Your task to perform on an android device: See recent photos Image 0: 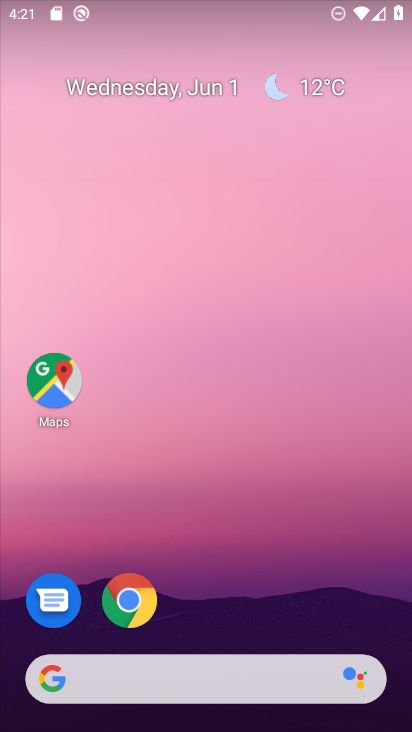
Step 0: drag from (374, 617) to (321, 112)
Your task to perform on an android device: See recent photos Image 1: 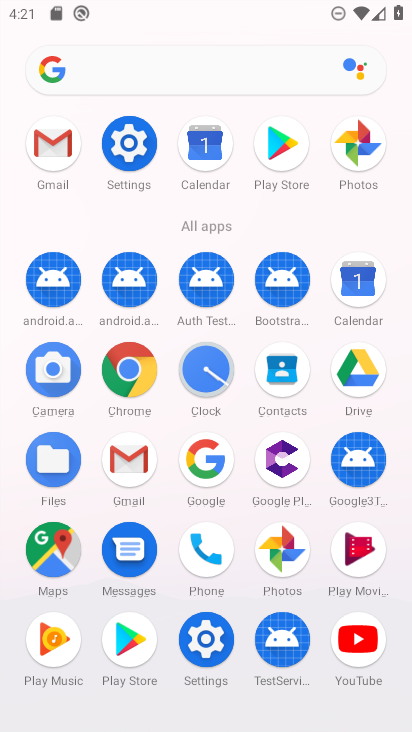
Step 1: click (281, 546)
Your task to perform on an android device: See recent photos Image 2: 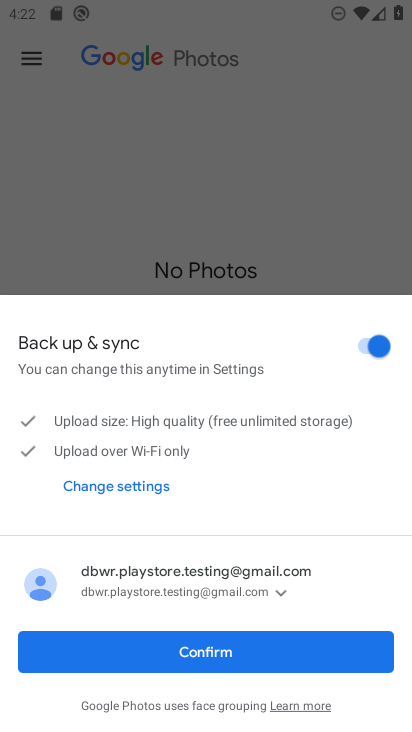
Step 2: click (205, 649)
Your task to perform on an android device: See recent photos Image 3: 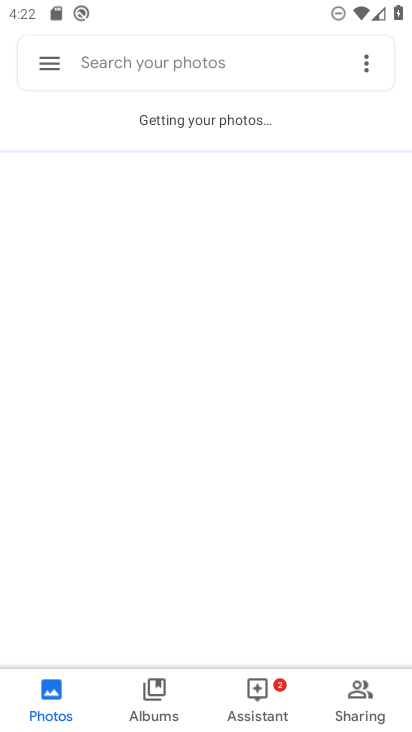
Step 3: task complete